Your task to perform on an android device: What's the weather going to be tomorrow? Image 0: 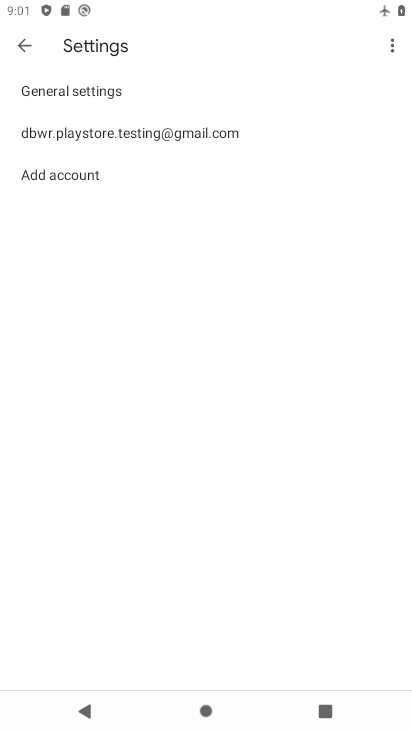
Step 0: drag from (191, 675) to (240, 306)
Your task to perform on an android device: What's the weather going to be tomorrow? Image 1: 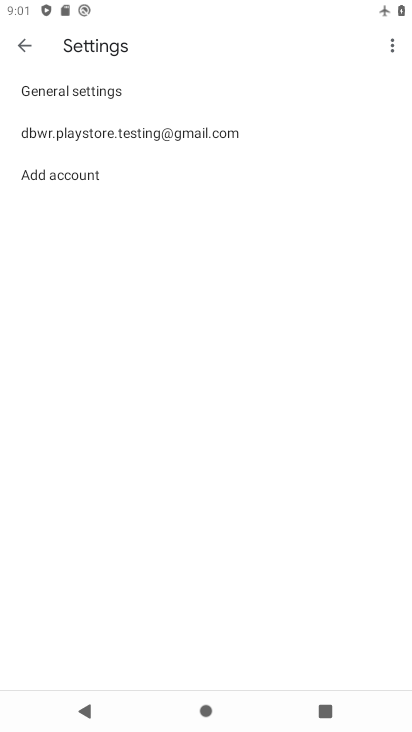
Step 1: press home button
Your task to perform on an android device: What's the weather going to be tomorrow? Image 2: 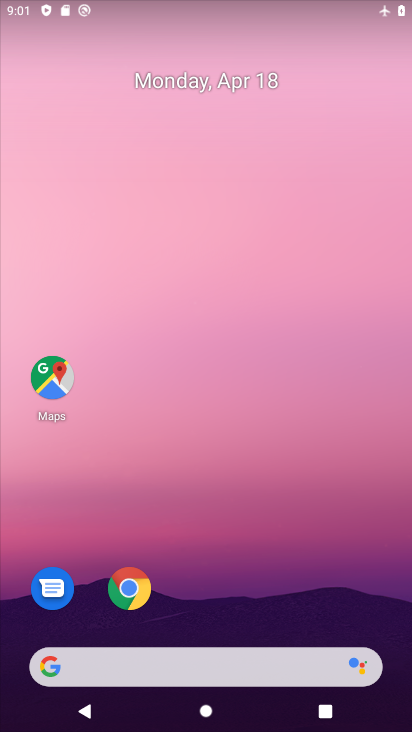
Step 2: drag from (252, 612) to (289, 257)
Your task to perform on an android device: What's the weather going to be tomorrow? Image 3: 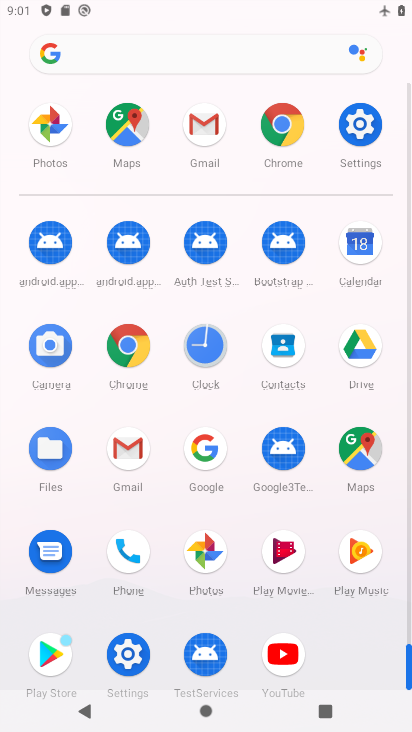
Step 3: click (207, 450)
Your task to perform on an android device: What's the weather going to be tomorrow? Image 4: 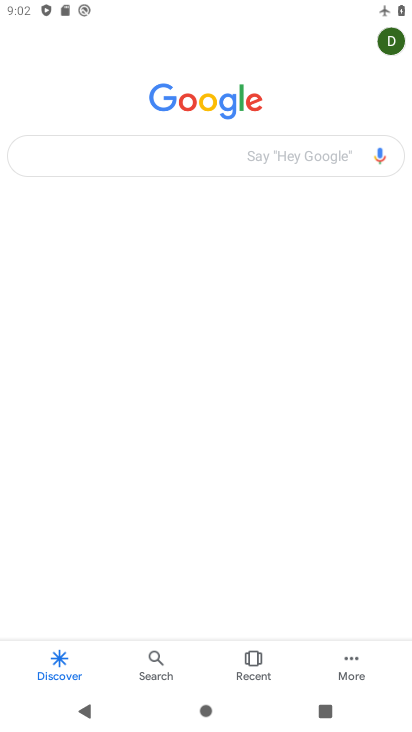
Step 4: click (230, 152)
Your task to perform on an android device: What's the weather going to be tomorrow? Image 5: 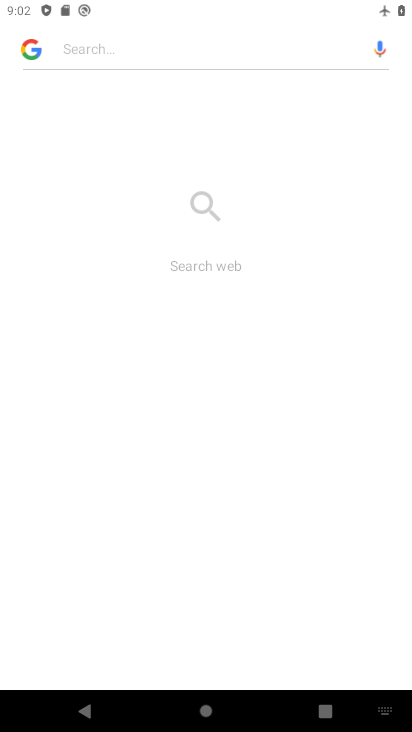
Step 5: type "What's the weather going to be tomorrow?"
Your task to perform on an android device: What's the weather going to be tomorrow? Image 6: 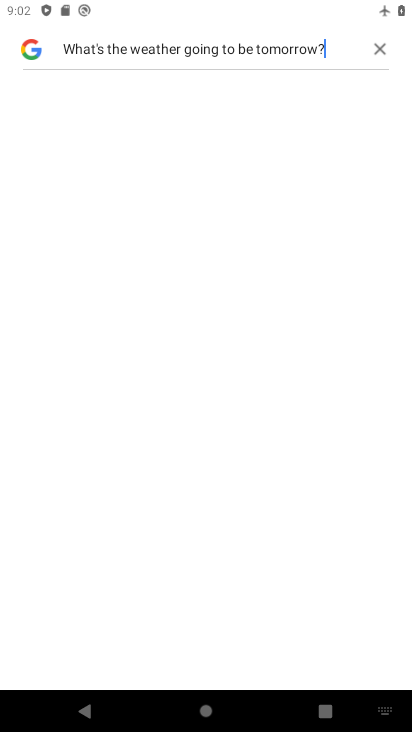
Step 6: task complete